Your task to perform on an android device: check android version Image 0: 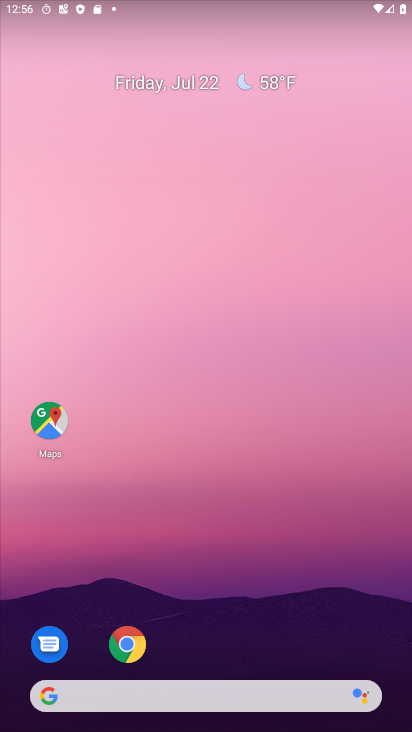
Step 0: click (358, 9)
Your task to perform on an android device: check android version Image 1: 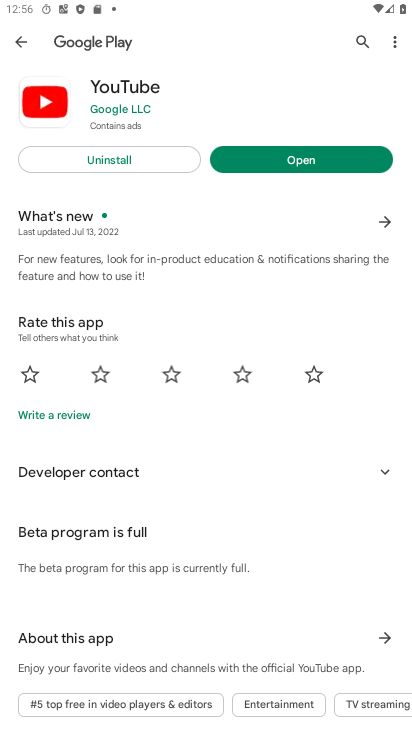
Step 1: drag from (243, 571) to (319, 206)
Your task to perform on an android device: check android version Image 2: 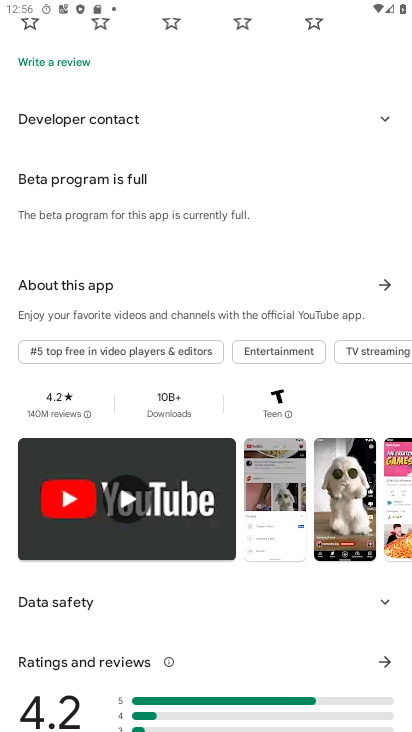
Step 2: drag from (198, 632) to (308, 286)
Your task to perform on an android device: check android version Image 3: 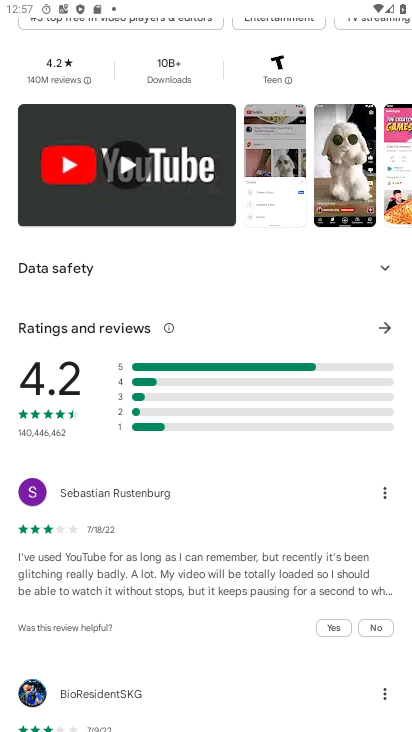
Step 3: drag from (131, 692) to (214, 337)
Your task to perform on an android device: check android version Image 4: 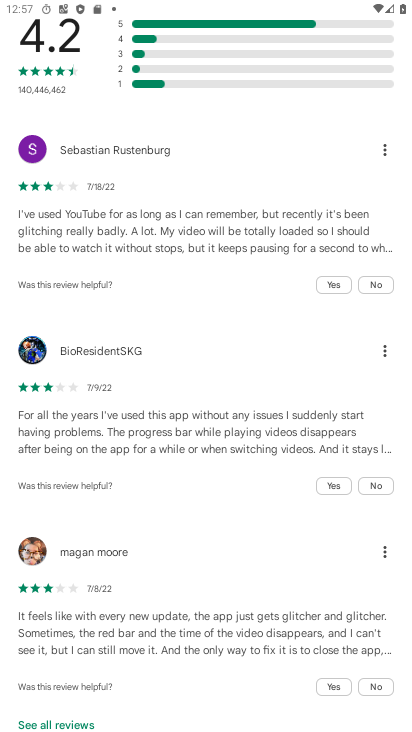
Step 4: drag from (261, 222) to (398, 334)
Your task to perform on an android device: check android version Image 5: 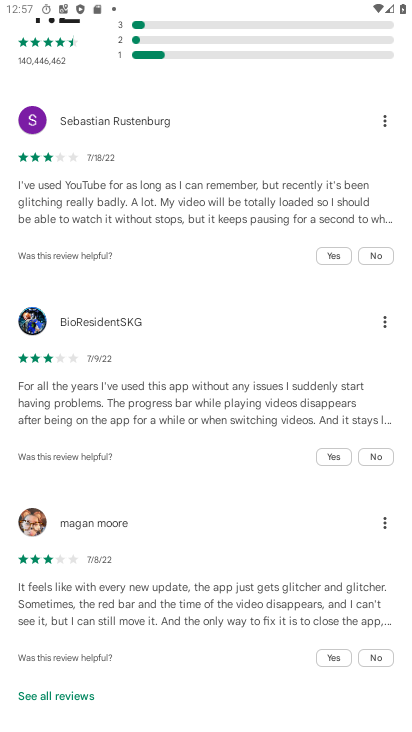
Step 5: drag from (248, 193) to (318, 644)
Your task to perform on an android device: check android version Image 6: 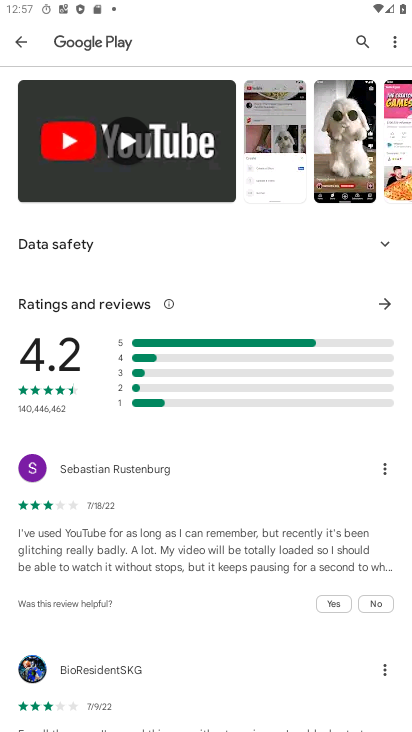
Step 6: drag from (214, 203) to (388, 673)
Your task to perform on an android device: check android version Image 7: 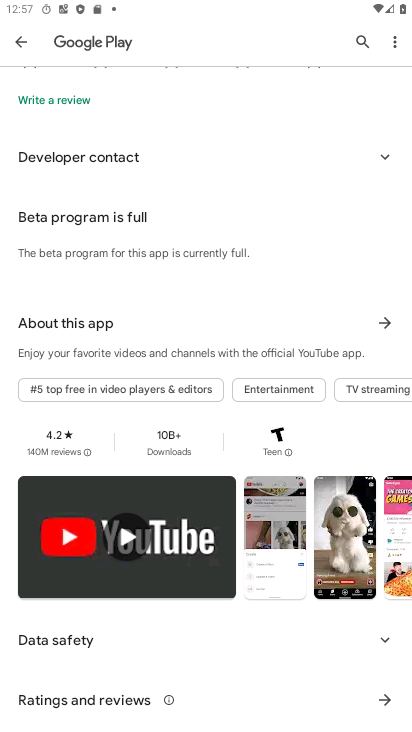
Step 7: drag from (251, 358) to (373, 706)
Your task to perform on an android device: check android version Image 8: 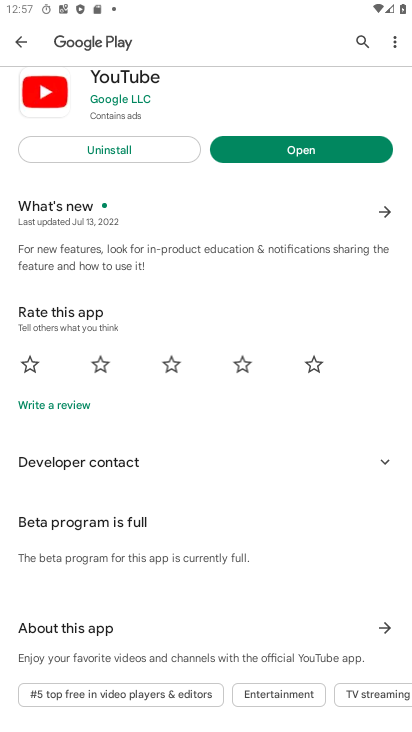
Step 8: press home button
Your task to perform on an android device: check android version Image 9: 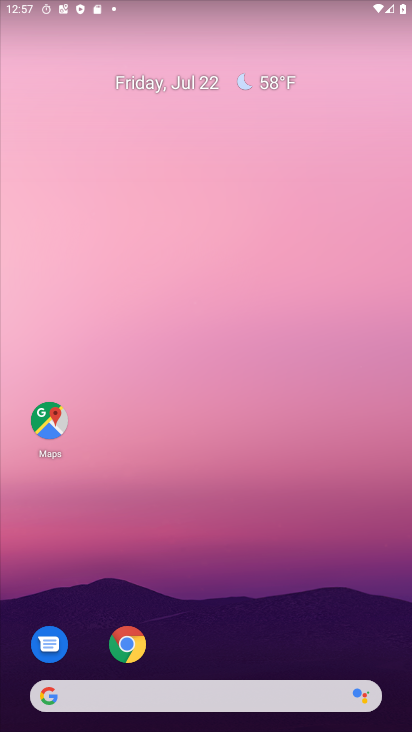
Step 9: drag from (163, 653) to (229, 258)
Your task to perform on an android device: check android version Image 10: 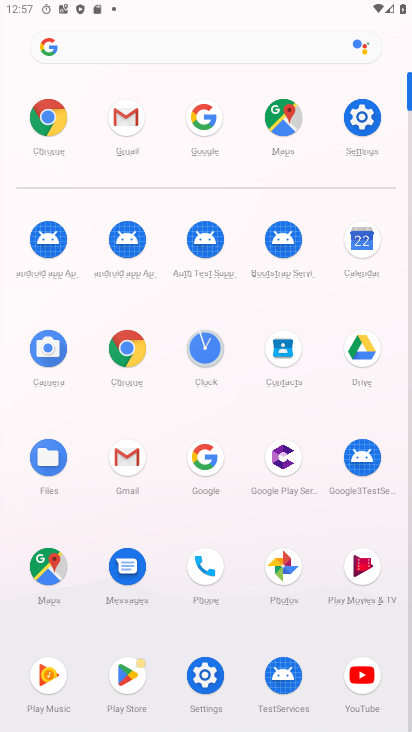
Step 10: click (212, 635)
Your task to perform on an android device: check android version Image 11: 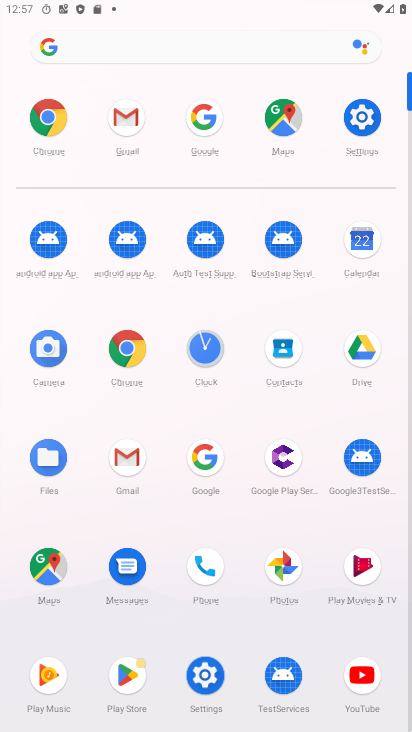
Step 11: click (213, 657)
Your task to perform on an android device: check android version Image 12: 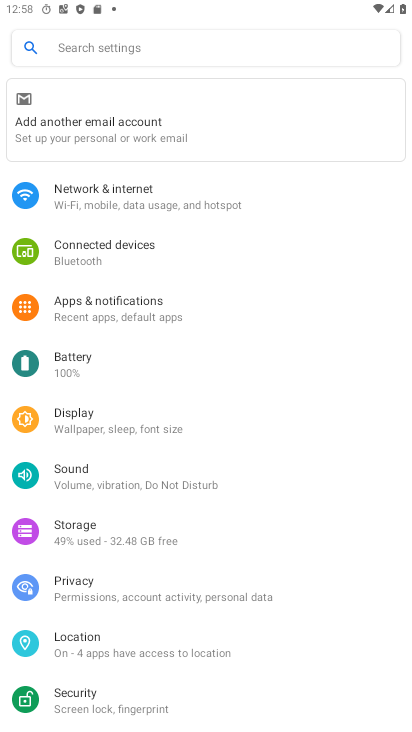
Step 12: drag from (158, 654) to (280, 143)
Your task to perform on an android device: check android version Image 13: 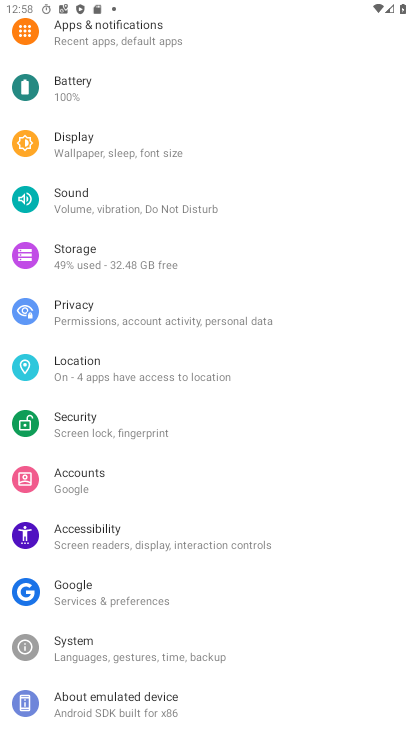
Step 13: click (114, 705)
Your task to perform on an android device: check android version Image 14: 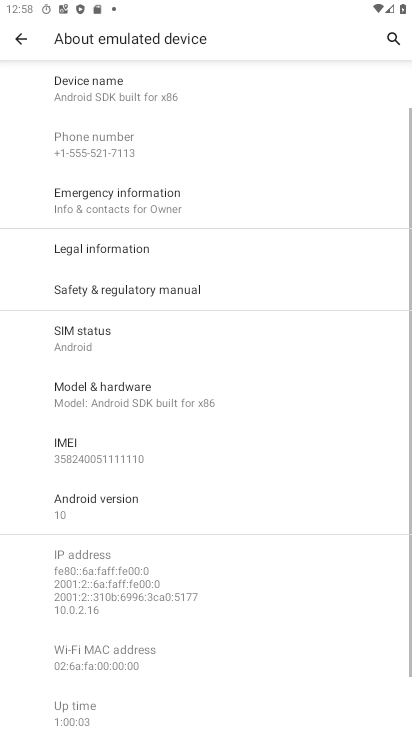
Step 14: drag from (182, 259) to (225, 728)
Your task to perform on an android device: check android version Image 15: 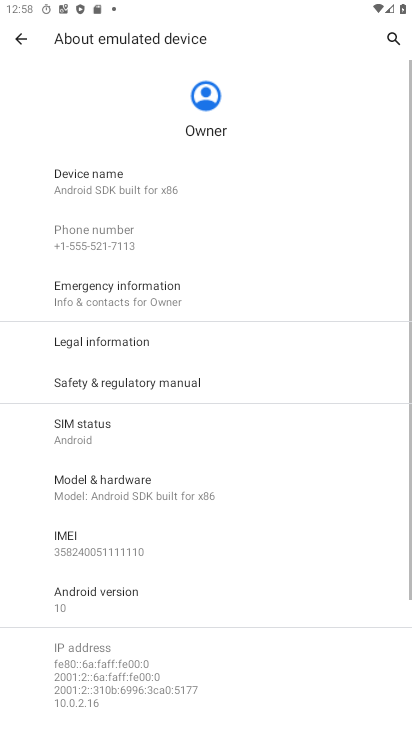
Step 15: click (134, 608)
Your task to perform on an android device: check android version Image 16: 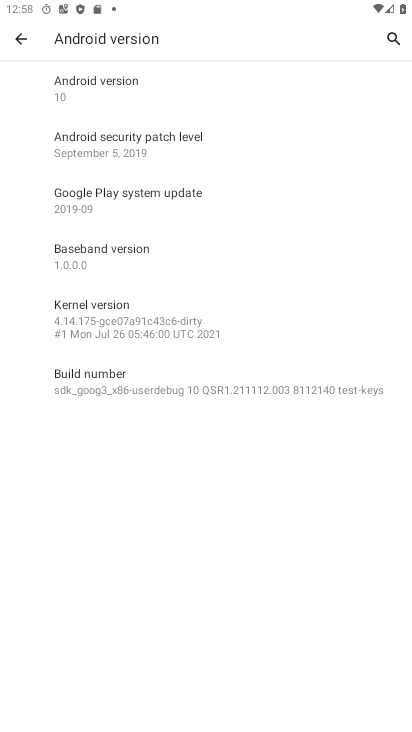
Step 16: click (171, 106)
Your task to perform on an android device: check android version Image 17: 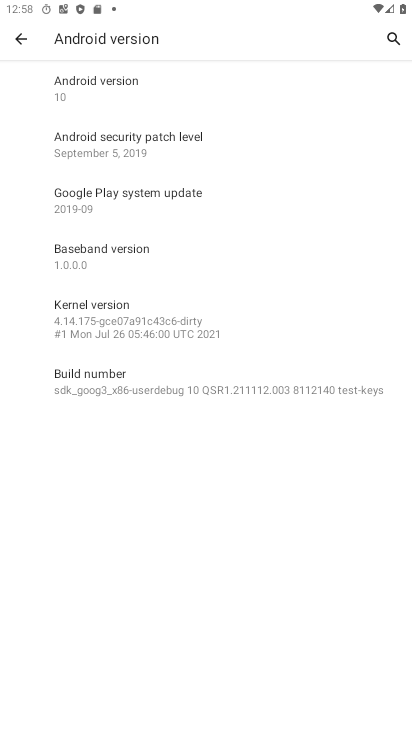
Step 17: drag from (131, 576) to (271, 73)
Your task to perform on an android device: check android version Image 18: 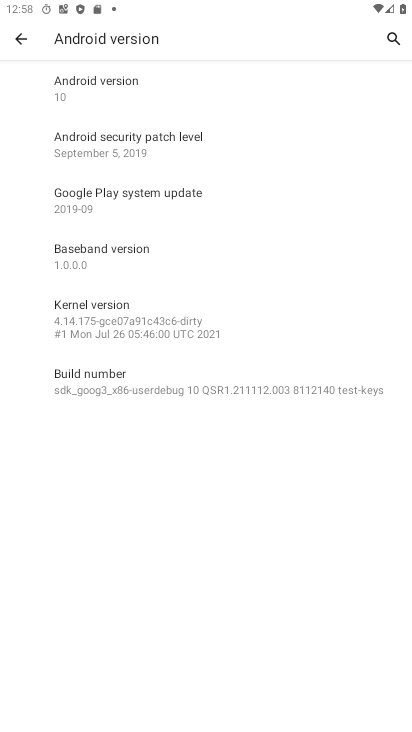
Step 18: click (145, 93)
Your task to perform on an android device: check android version Image 19: 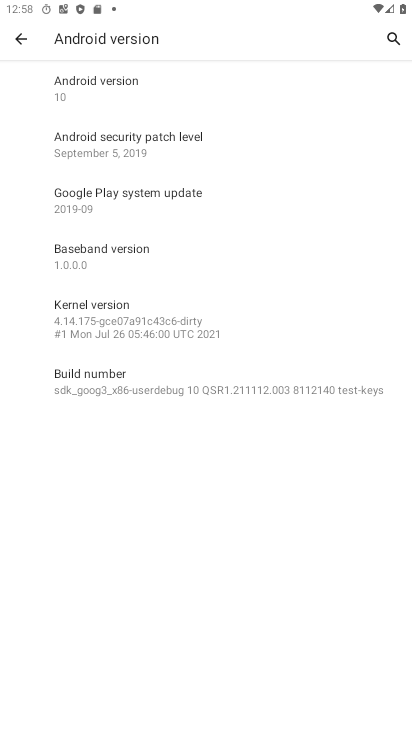
Step 19: task complete